Your task to perform on an android device: What's the weather going to be tomorrow? Image 0: 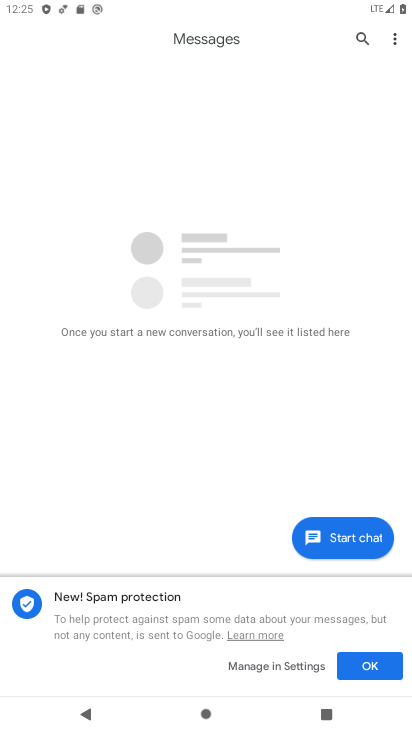
Step 0: press home button
Your task to perform on an android device: What's the weather going to be tomorrow? Image 1: 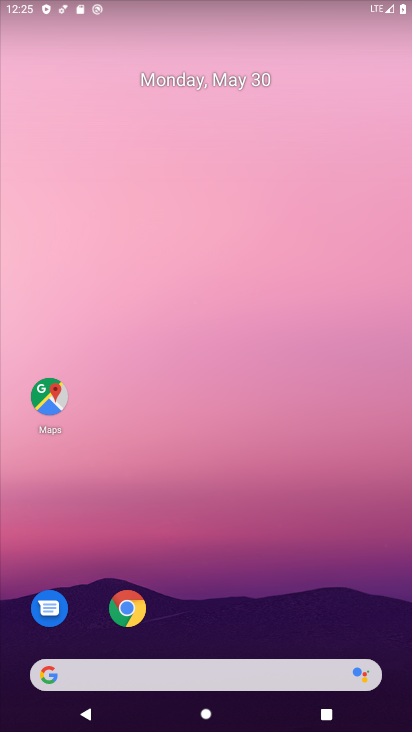
Step 1: drag from (225, 626) to (234, 48)
Your task to perform on an android device: What's the weather going to be tomorrow? Image 2: 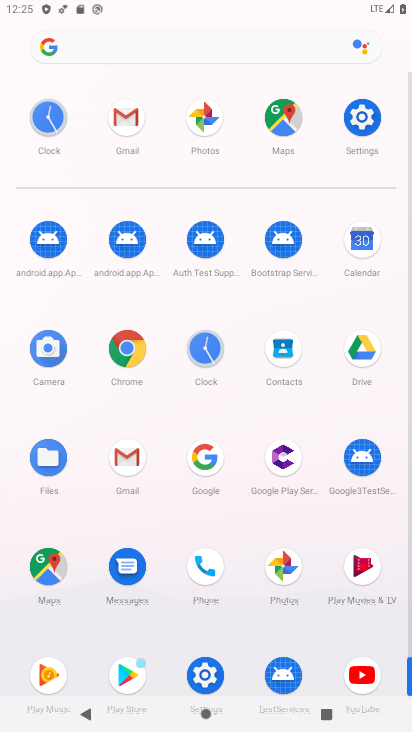
Step 2: click (172, 35)
Your task to perform on an android device: What's the weather going to be tomorrow? Image 3: 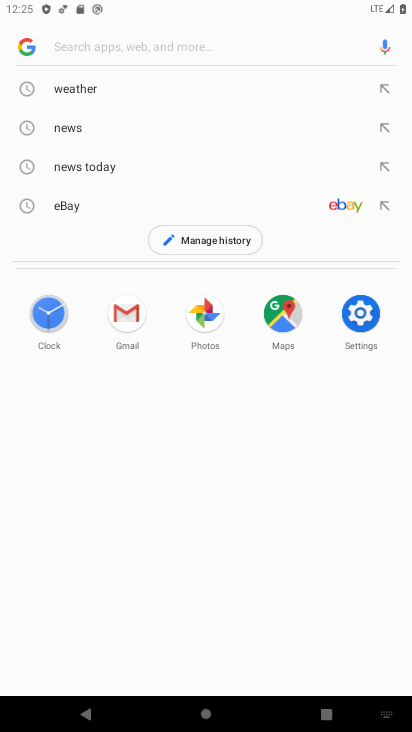
Step 3: click (127, 95)
Your task to perform on an android device: What's the weather going to be tomorrow? Image 4: 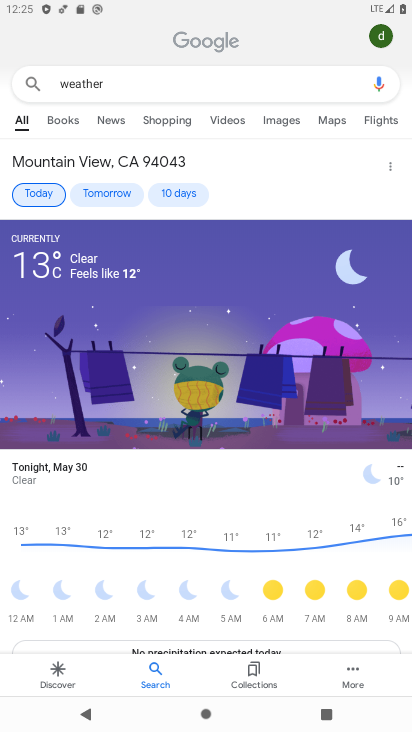
Step 4: click (86, 187)
Your task to perform on an android device: What's the weather going to be tomorrow? Image 5: 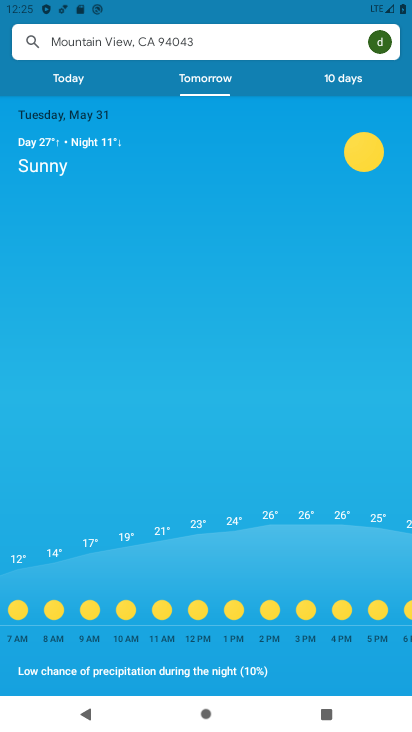
Step 5: task complete